Your task to perform on an android device: turn on airplane mode Image 0: 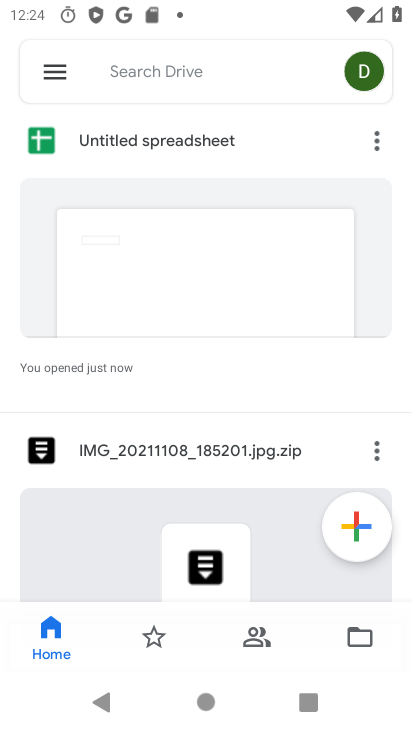
Step 0: press back button
Your task to perform on an android device: turn on airplane mode Image 1: 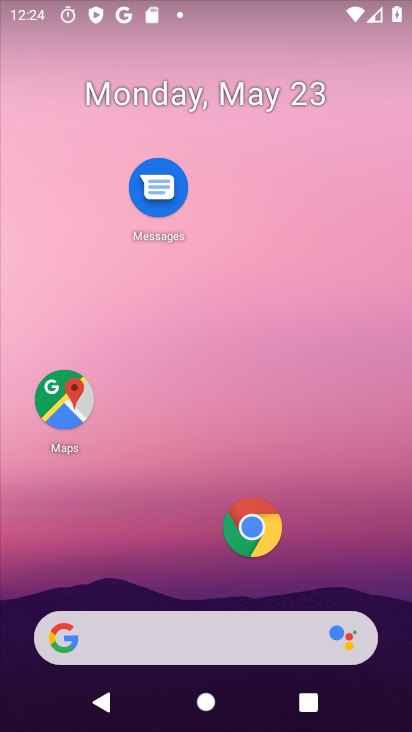
Step 1: drag from (281, 676) to (235, 110)
Your task to perform on an android device: turn on airplane mode Image 2: 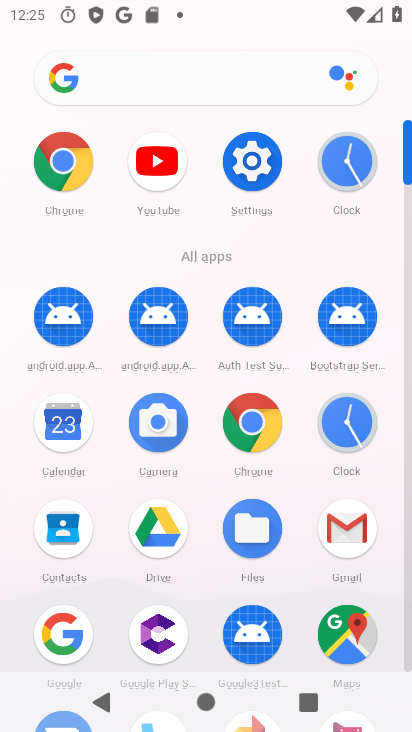
Step 2: click (244, 173)
Your task to perform on an android device: turn on airplane mode Image 3: 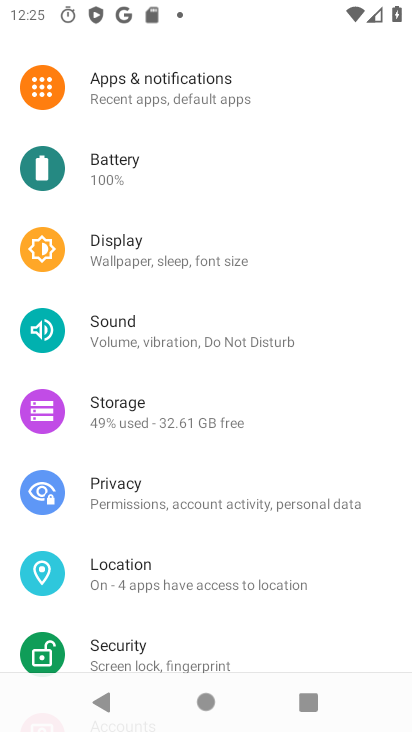
Step 3: drag from (171, 90) to (128, 526)
Your task to perform on an android device: turn on airplane mode Image 4: 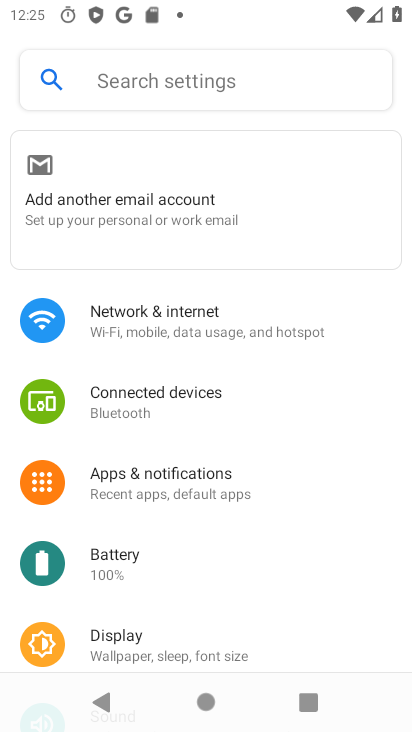
Step 4: click (167, 312)
Your task to perform on an android device: turn on airplane mode Image 5: 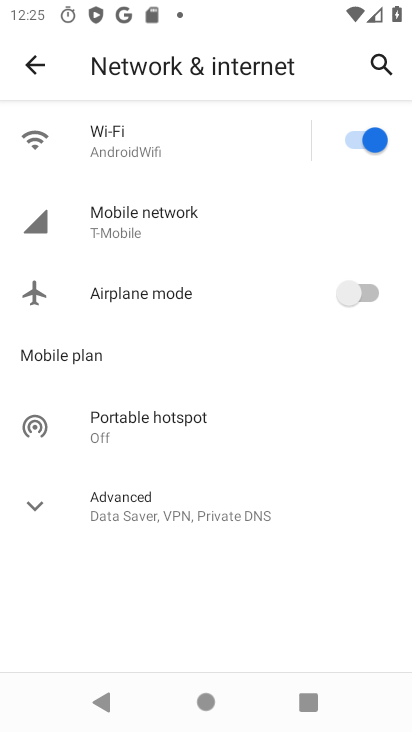
Step 5: click (348, 289)
Your task to perform on an android device: turn on airplane mode Image 6: 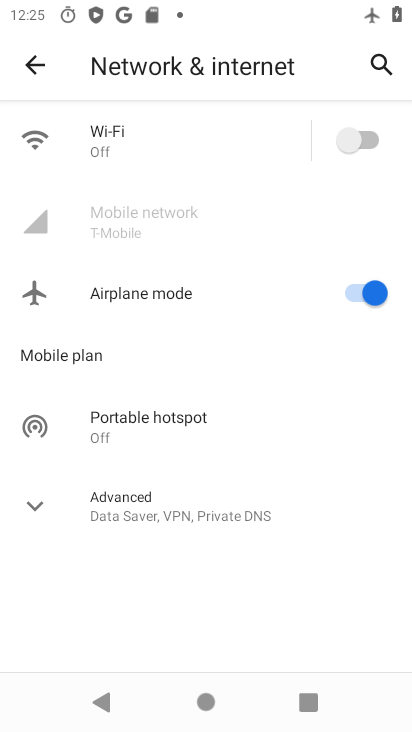
Step 6: task complete